Your task to perform on an android device: Check out the top rated books on Goodreads. Image 0: 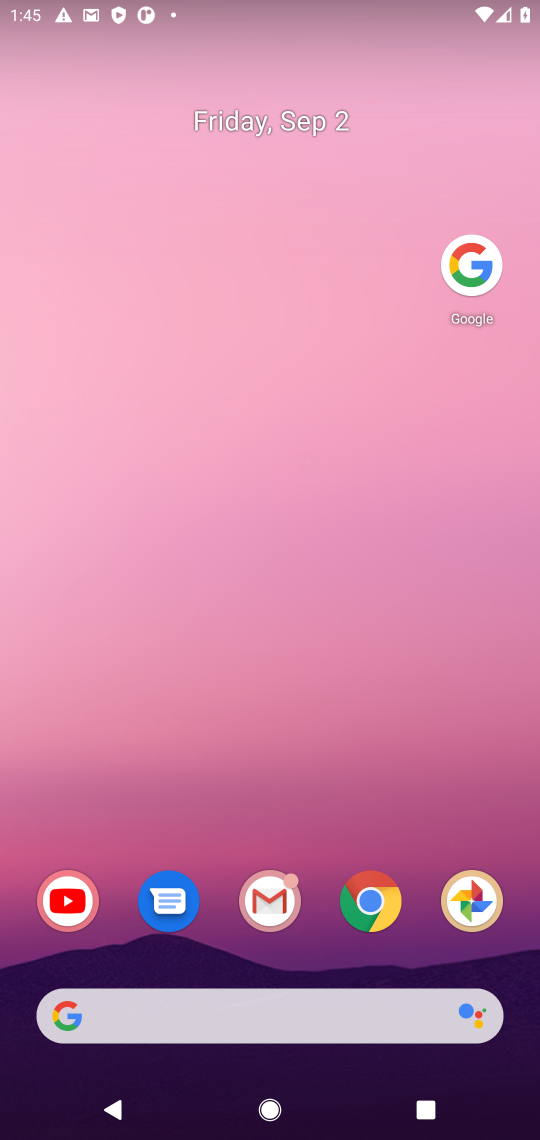
Step 0: drag from (321, 908) to (298, 335)
Your task to perform on an android device: Check out the top rated books on Goodreads. Image 1: 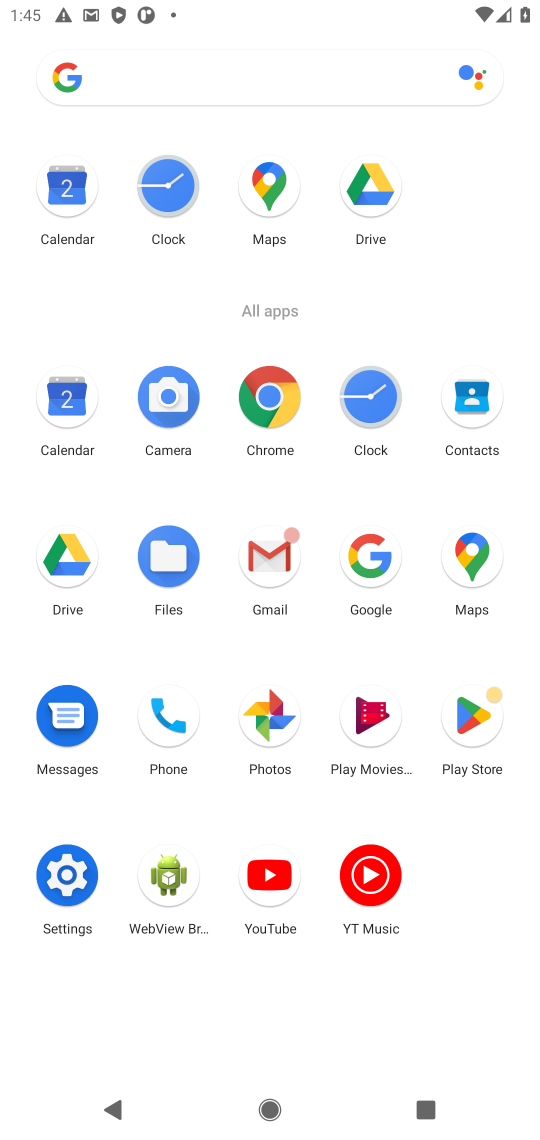
Step 1: click (378, 553)
Your task to perform on an android device: Check out the top rated books on Goodreads. Image 2: 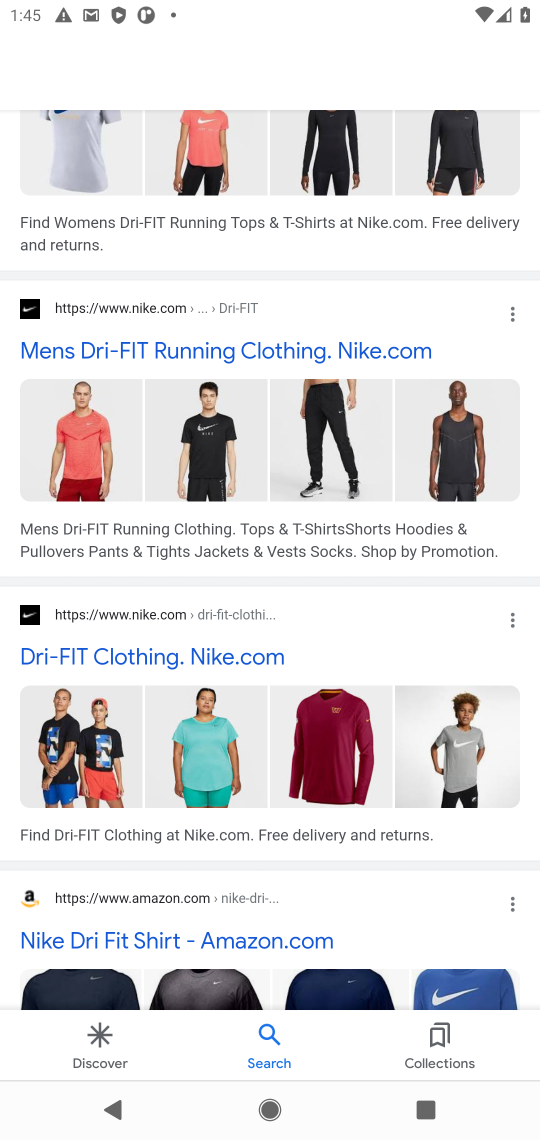
Step 2: drag from (328, 812) to (322, 942)
Your task to perform on an android device: Check out the top rated books on Goodreads. Image 3: 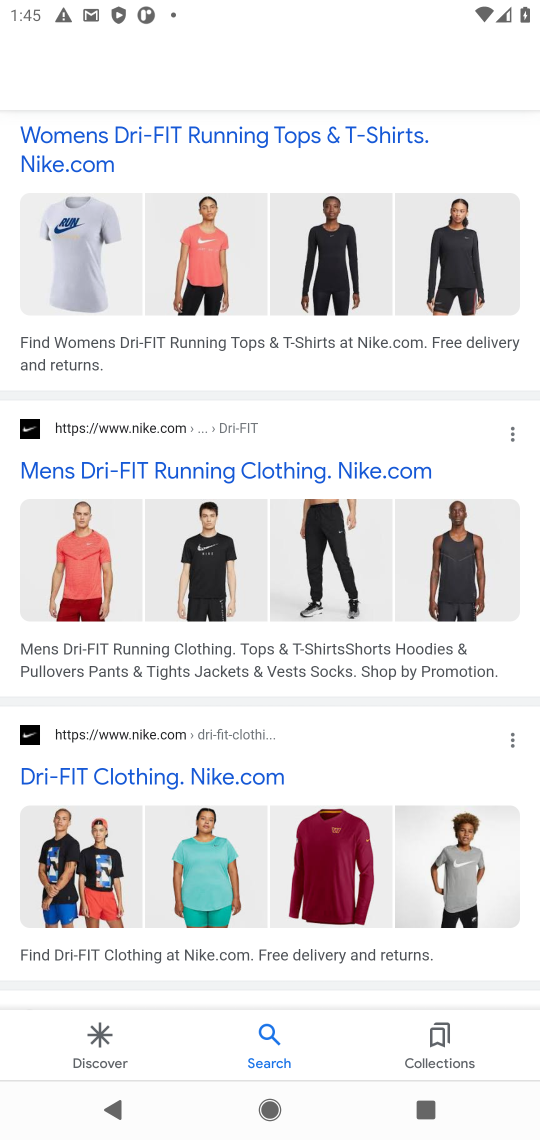
Step 3: drag from (262, 227) to (263, 1081)
Your task to perform on an android device: Check out the top rated books on Goodreads. Image 4: 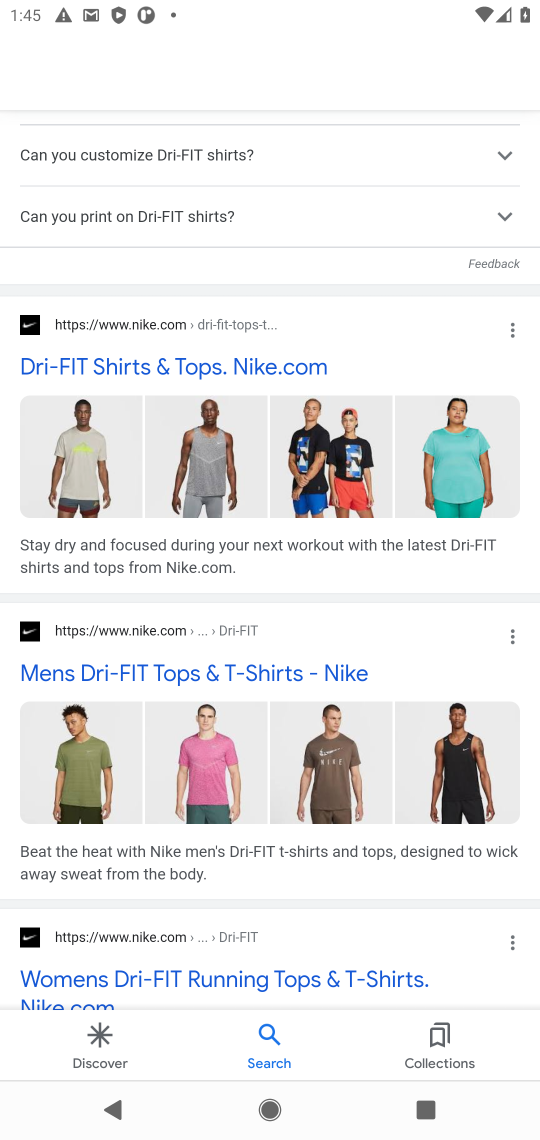
Step 4: click (287, 944)
Your task to perform on an android device: Check out the top rated books on Goodreads. Image 5: 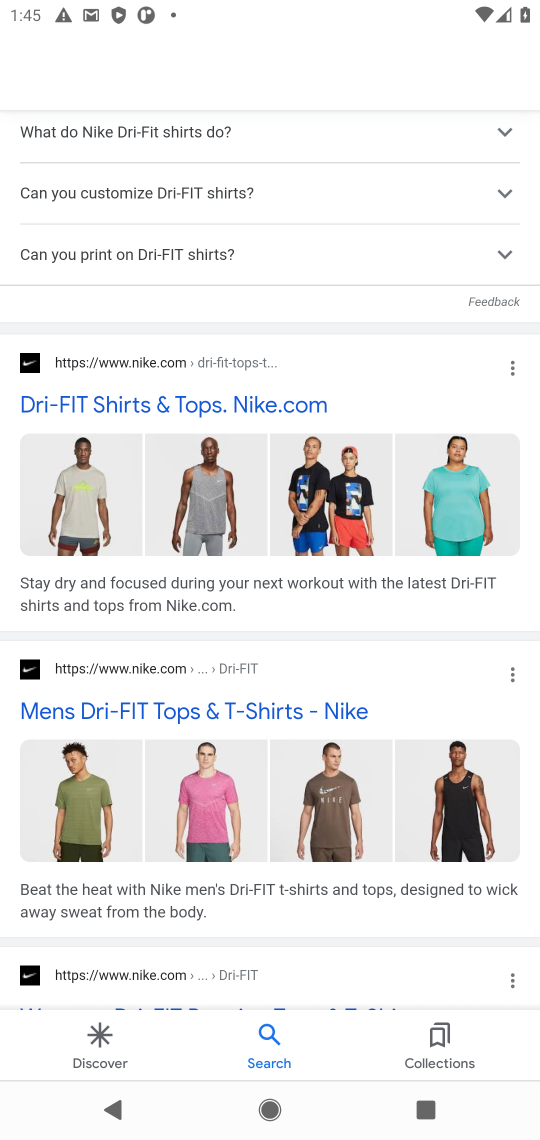
Step 5: click (248, 994)
Your task to perform on an android device: Check out the top rated books on Goodreads. Image 6: 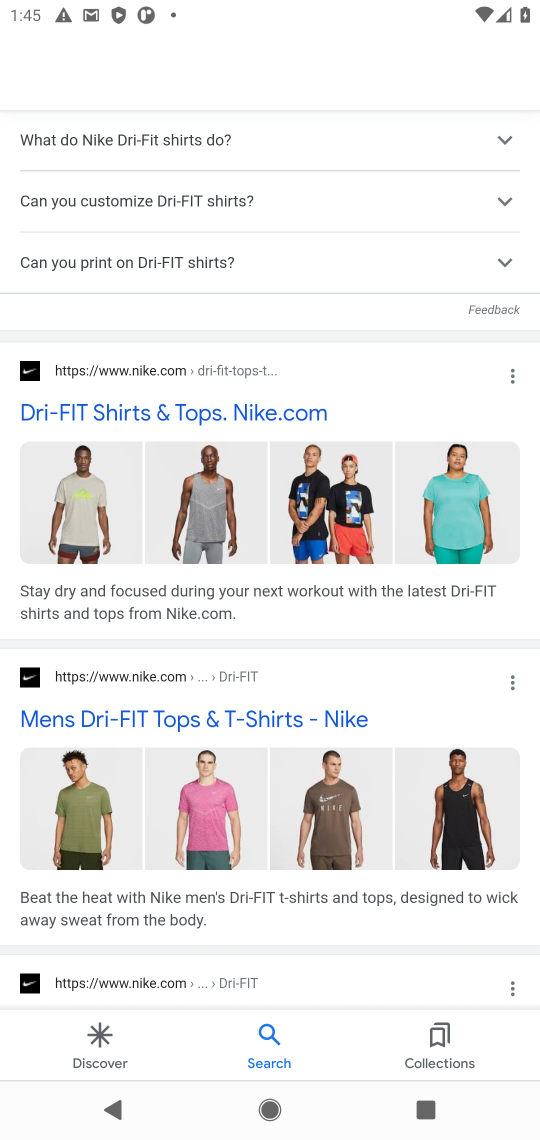
Step 6: press back button
Your task to perform on an android device: Check out the top rated books on Goodreads. Image 7: 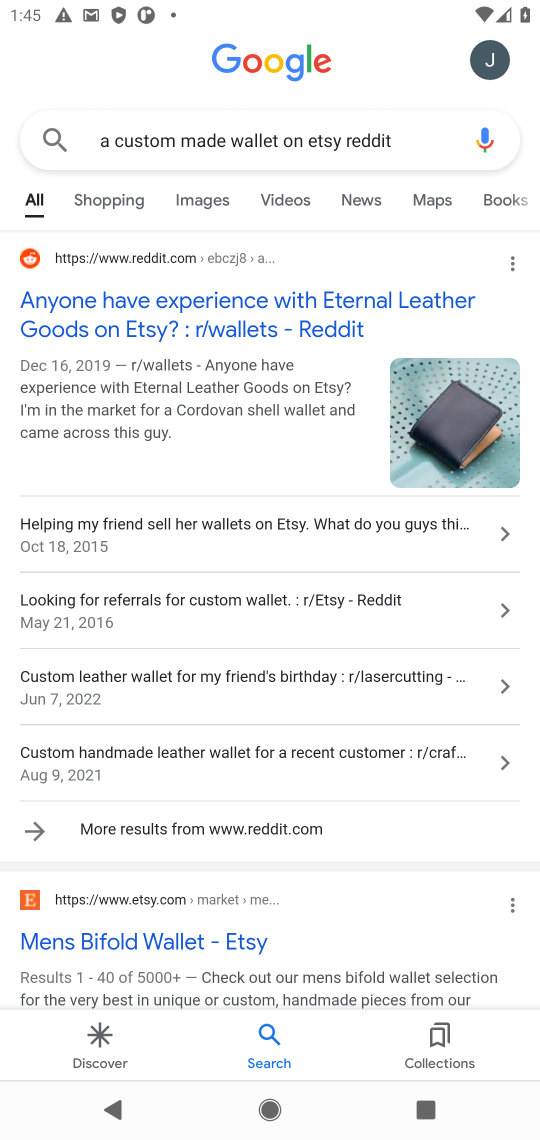
Step 7: click (437, 130)
Your task to perform on an android device: Check out the top rated books on Goodreads. Image 8: 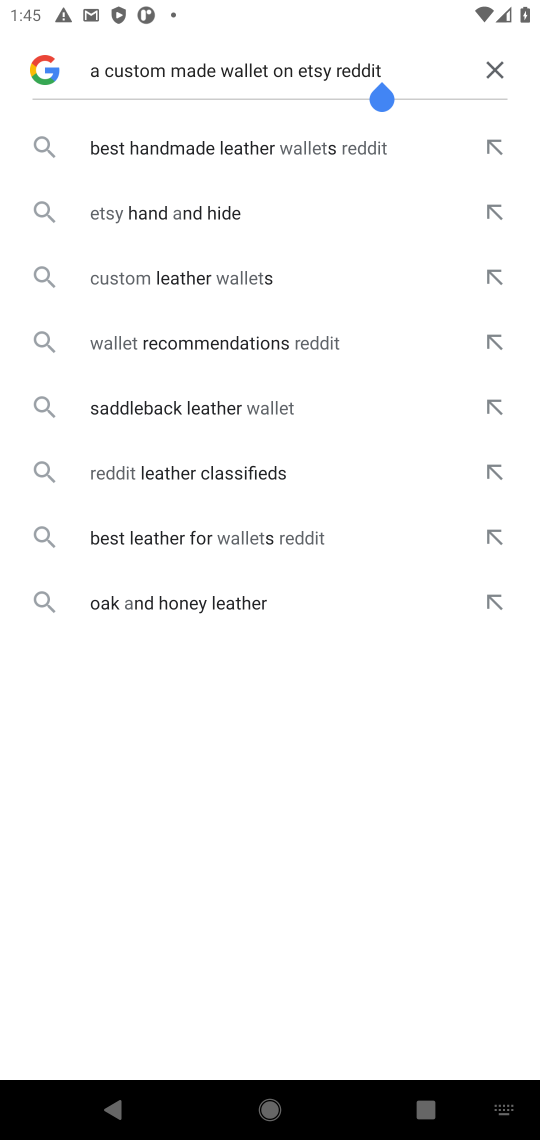
Step 8: click (490, 62)
Your task to perform on an android device: Check out the top rated books on Goodreads. Image 9: 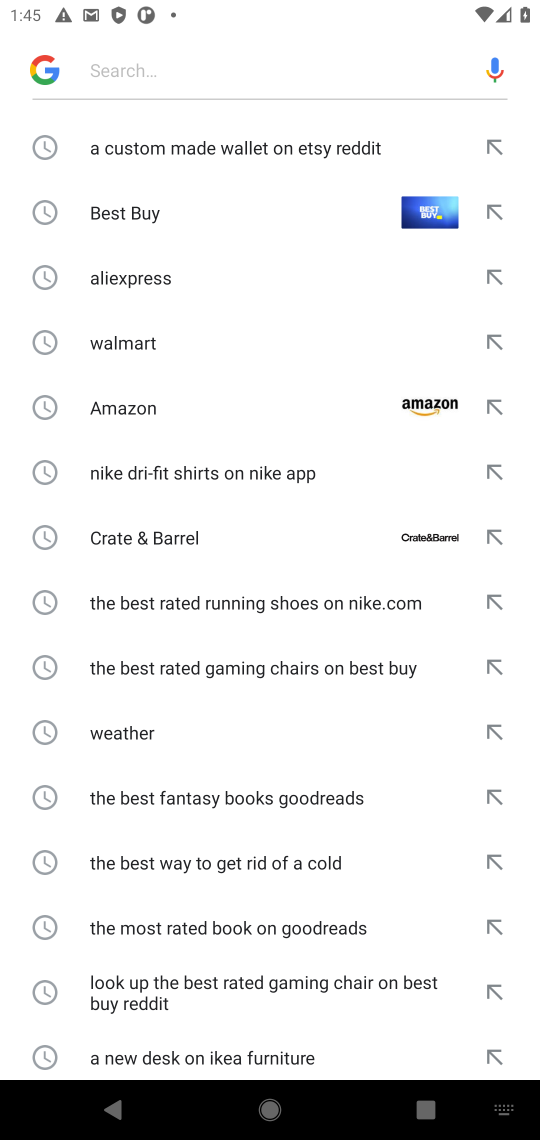
Step 9: click (209, 62)
Your task to perform on an android device: Check out the top rated books on Goodreads. Image 10: 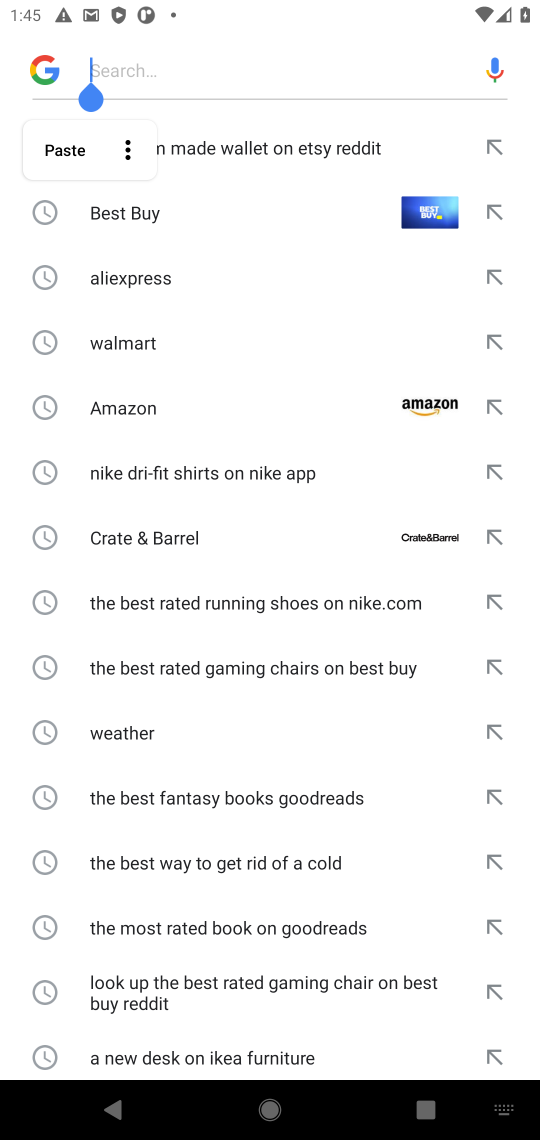
Step 10: type "he top rated books on Goodreads "
Your task to perform on an android device: Check out the top rated books on Goodreads. Image 11: 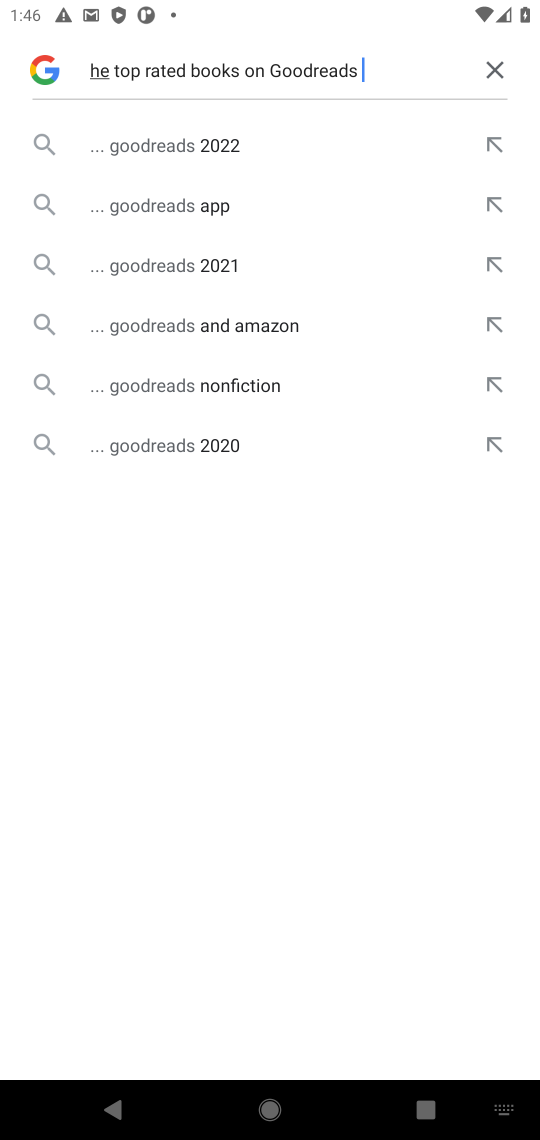
Step 11: click (159, 198)
Your task to perform on an android device: Check out the top rated books on Goodreads. Image 12: 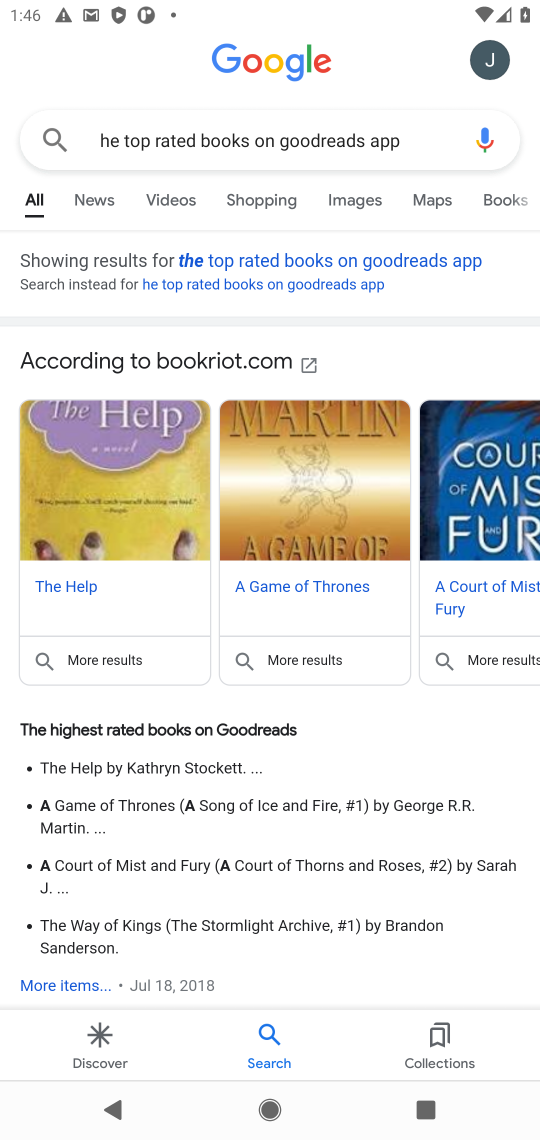
Step 12: click (426, 131)
Your task to perform on an android device: Check out the top rated books on Goodreads. Image 13: 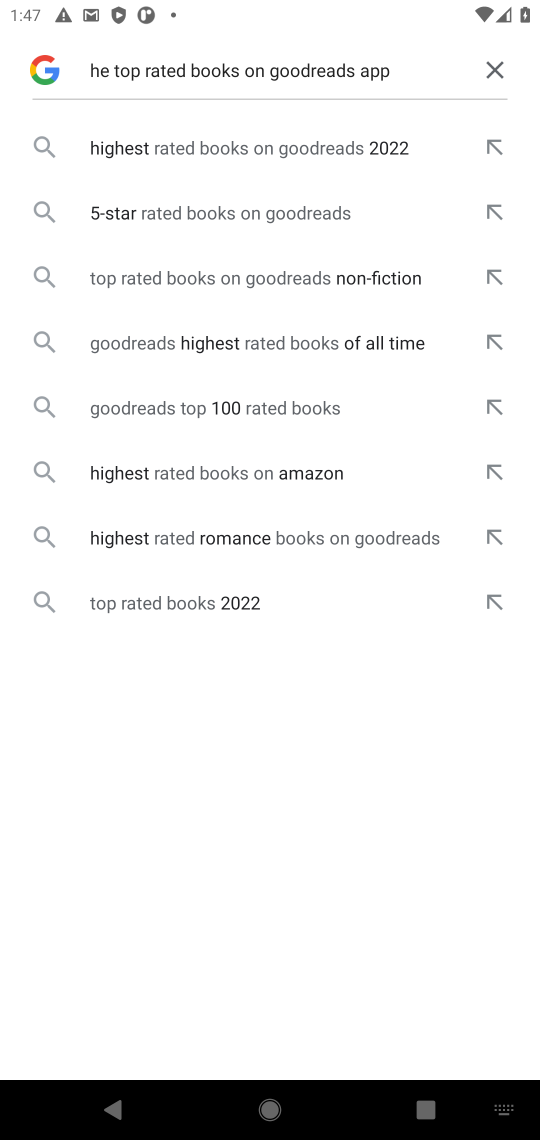
Step 13: click (282, 151)
Your task to perform on an android device: Check out the top rated books on Goodreads. Image 14: 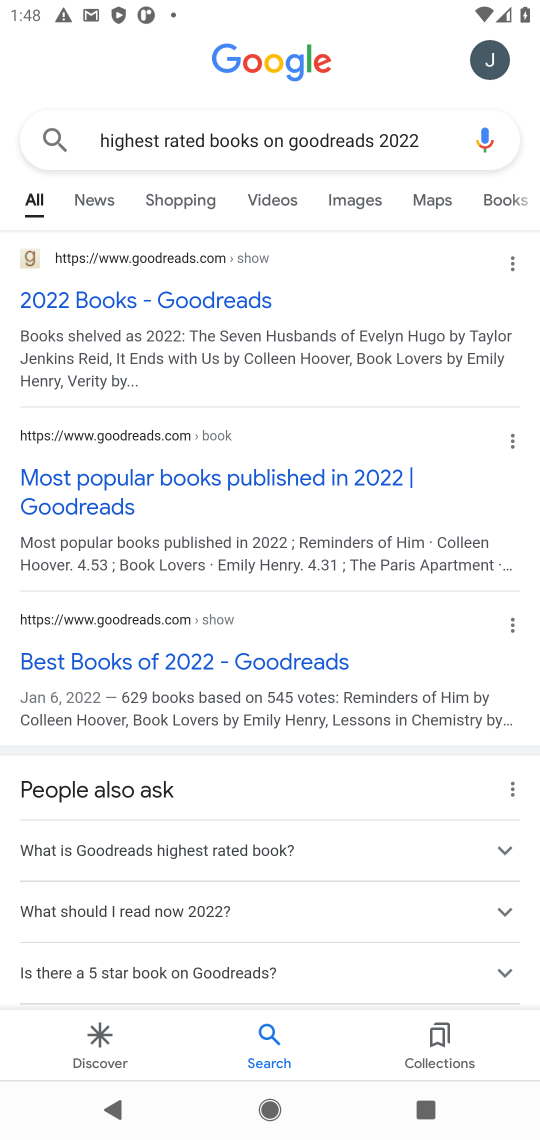
Step 14: click (234, 299)
Your task to perform on an android device: Check out the top rated books on Goodreads. Image 15: 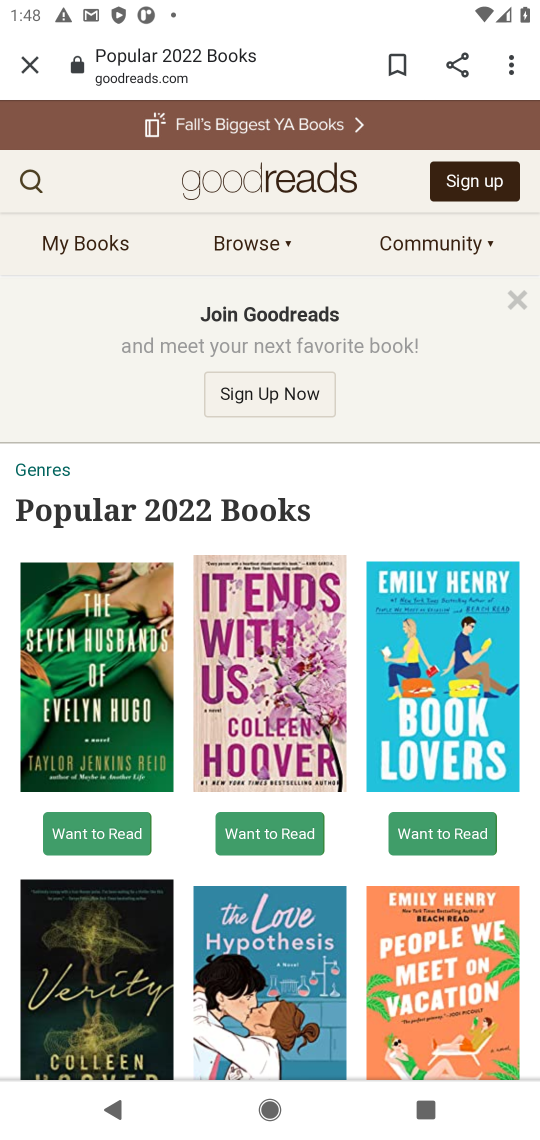
Step 15: task complete